Your task to perform on an android device: Open the stopwatch Image 0: 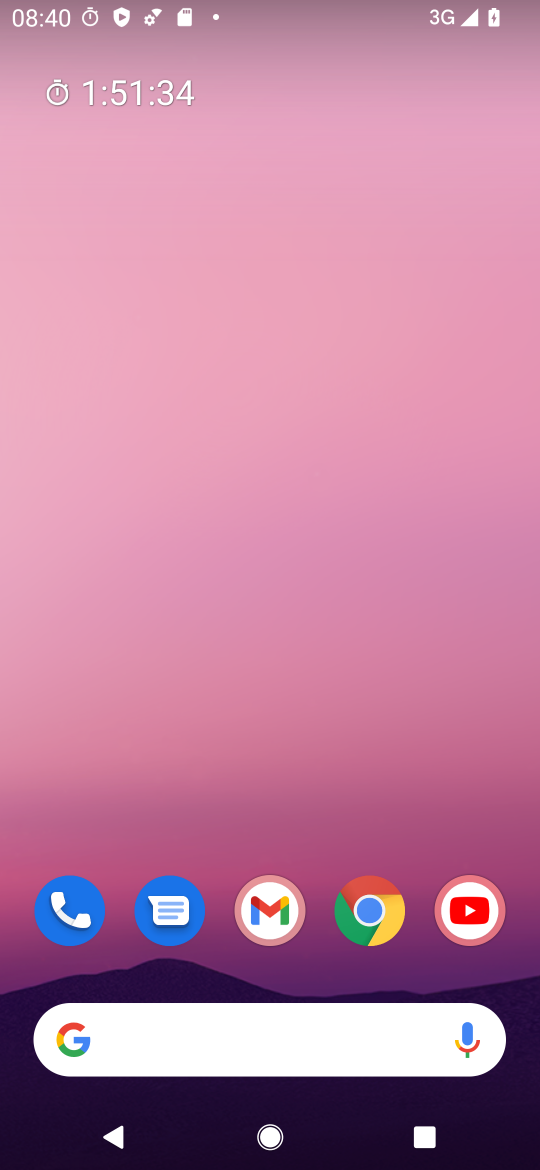
Step 0: drag from (233, 1027) to (176, 260)
Your task to perform on an android device: Open the stopwatch Image 1: 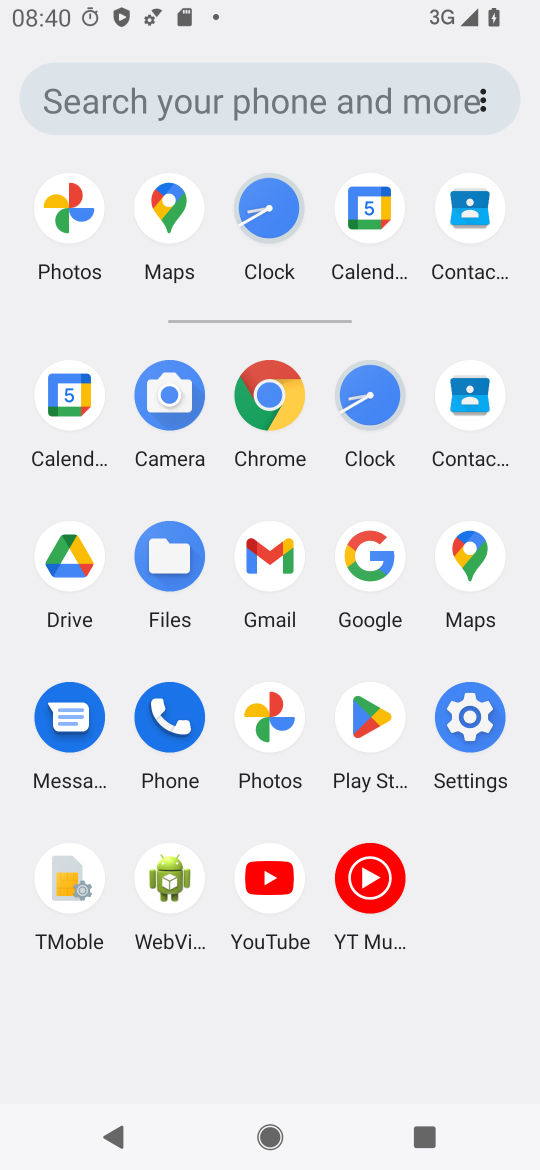
Step 1: click (369, 399)
Your task to perform on an android device: Open the stopwatch Image 2: 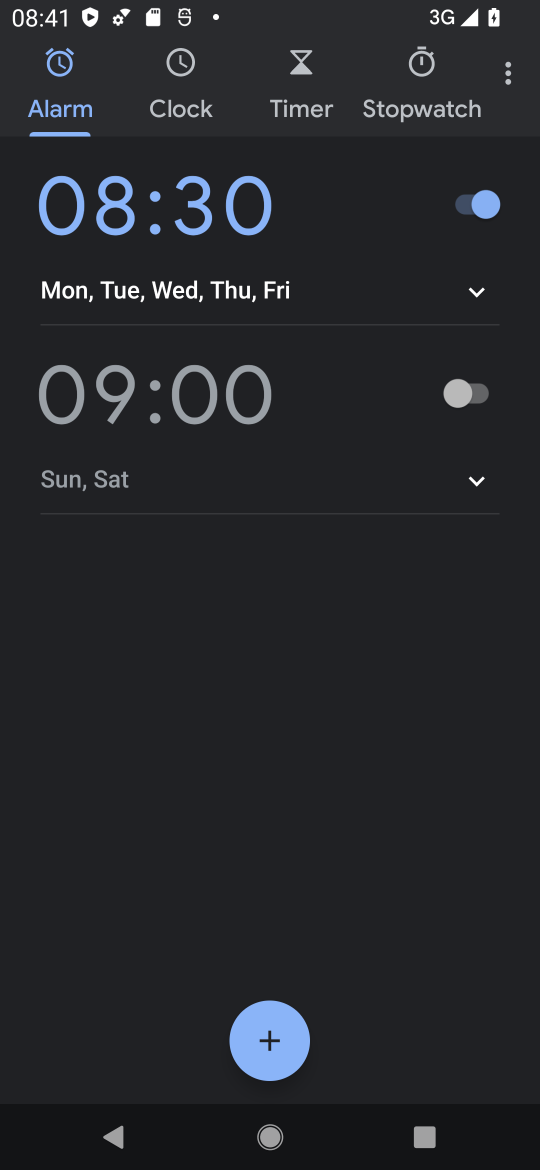
Step 2: click (417, 59)
Your task to perform on an android device: Open the stopwatch Image 3: 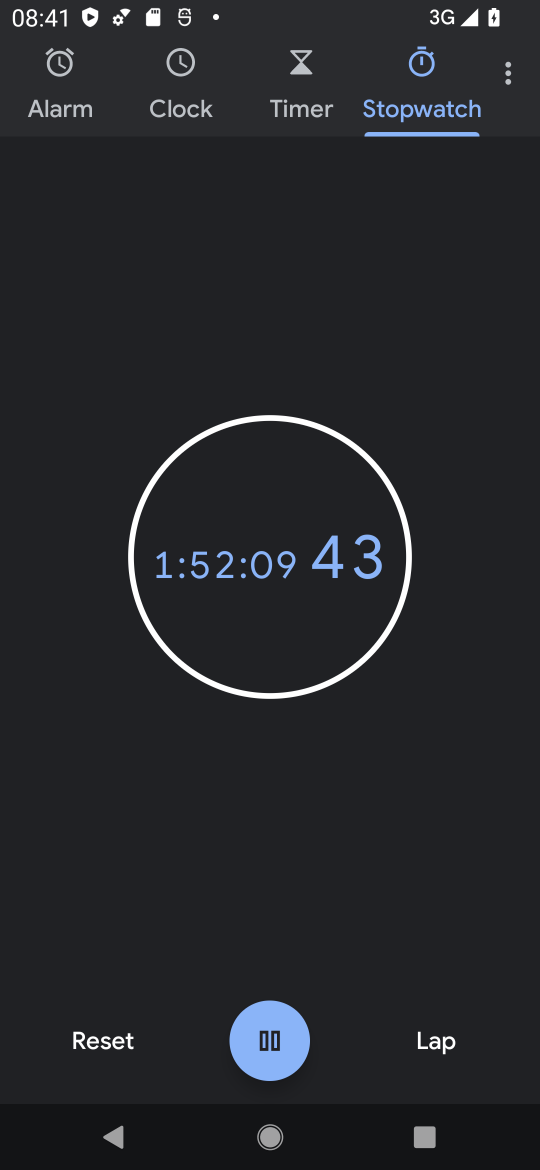
Step 3: task complete